Your task to perform on an android device: open a bookmark in the chrome app Image 0: 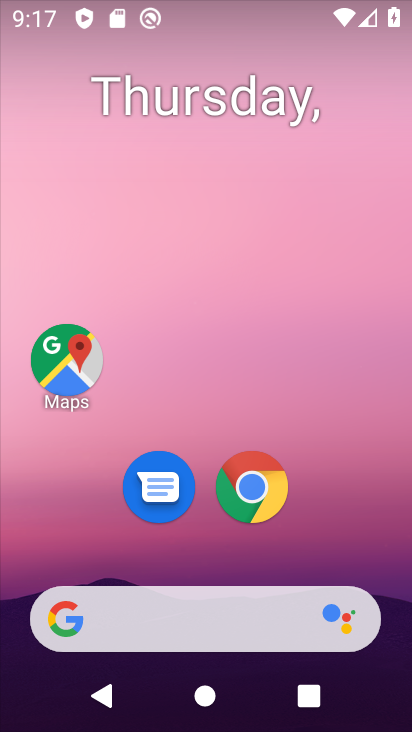
Step 0: click (264, 489)
Your task to perform on an android device: open a bookmark in the chrome app Image 1: 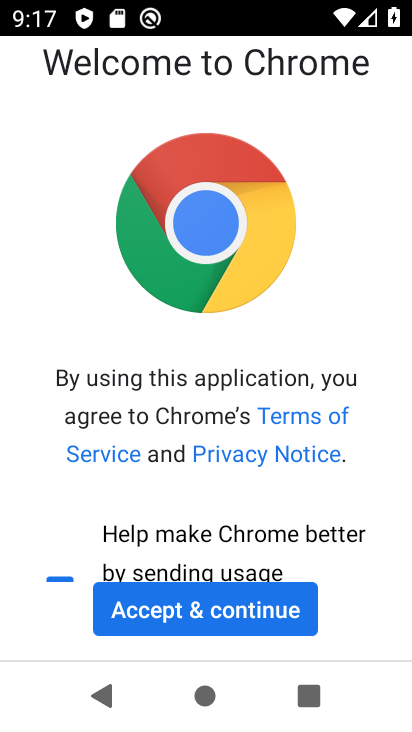
Step 1: click (228, 602)
Your task to perform on an android device: open a bookmark in the chrome app Image 2: 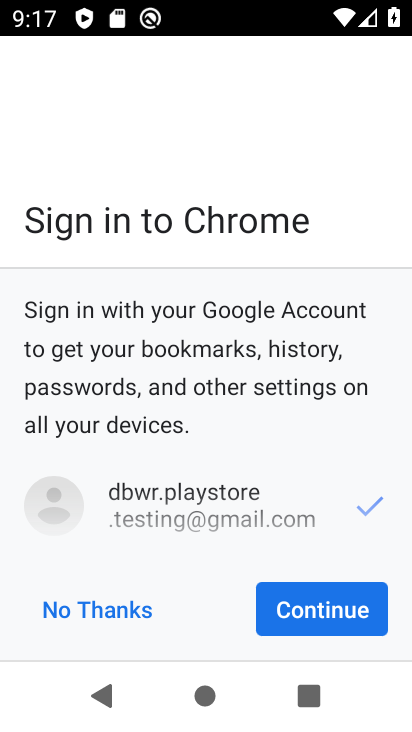
Step 2: click (299, 619)
Your task to perform on an android device: open a bookmark in the chrome app Image 3: 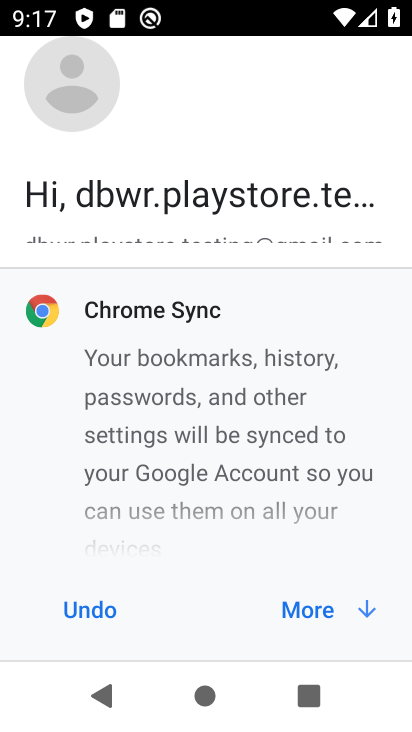
Step 3: click (299, 619)
Your task to perform on an android device: open a bookmark in the chrome app Image 4: 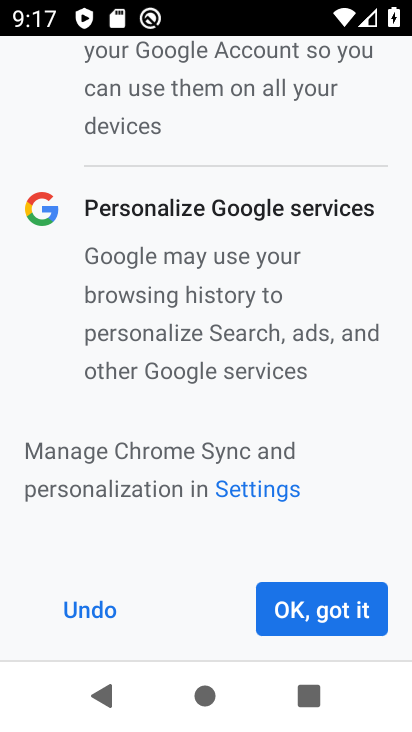
Step 4: click (299, 619)
Your task to perform on an android device: open a bookmark in the chrome app Image 5: 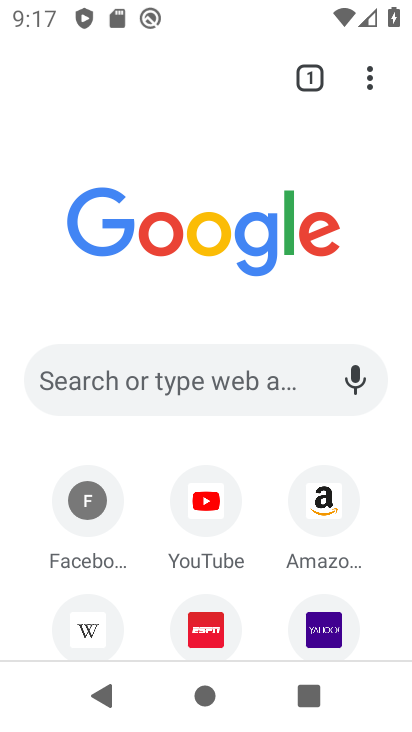
Step 5: click (376, 85)
Your task to perform on an android device: open a bookmark in the chrome app Image 6: 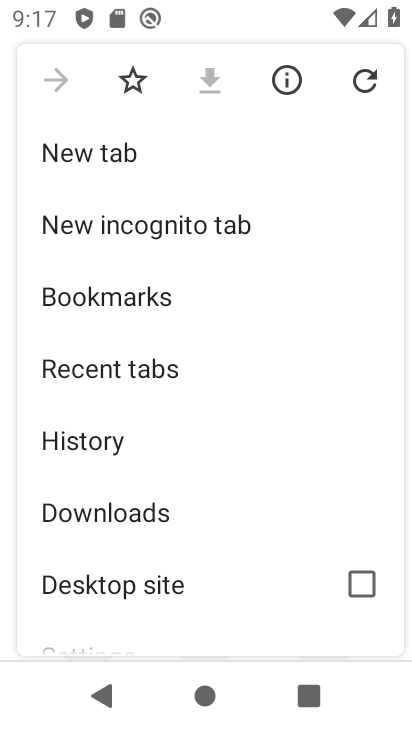
Step 6: click (119, 300)
Your task to perform on an android device: open a bookmark in the chrome app Image 7: 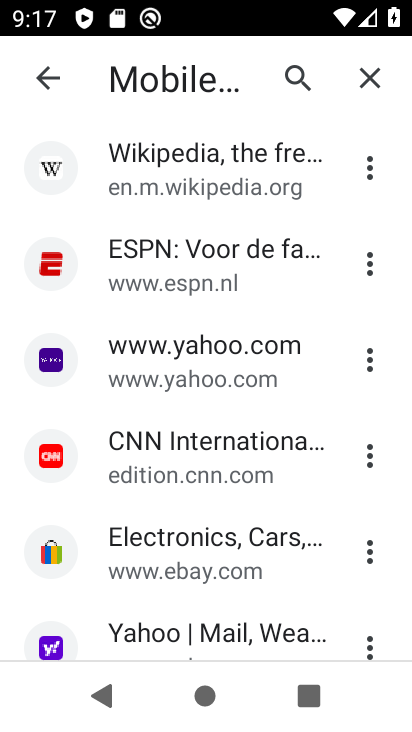
Step 7: task complete